Your task to perform on an android device: Open Google Chrome and click the shortcut for Amazon.com Image 0: 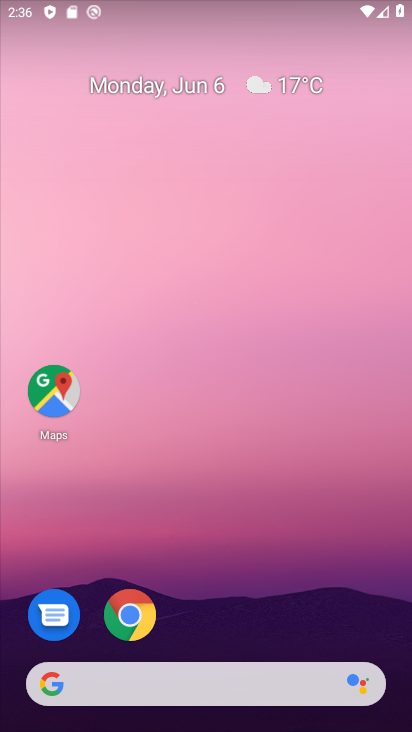
Step 0: click (145, 613)
Your task to perform on an android device: Open Google Chrome and click the shortcut for Amazon.com Image 1: 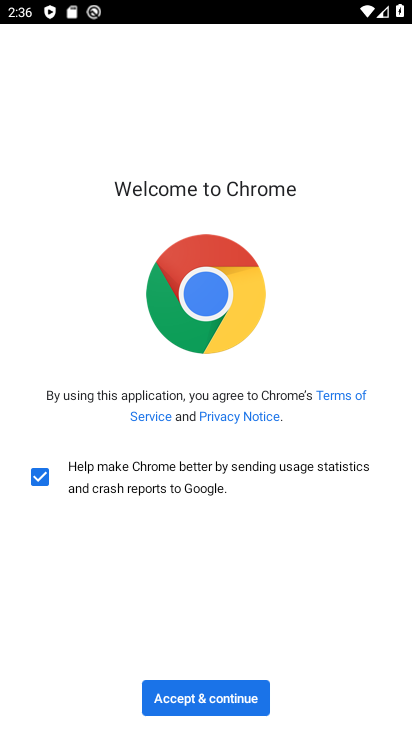
Step 1: click (213, 710)
Your task to perform on an android device: Open Google Chrome and click the shortcut for Amazon.com Image 2: 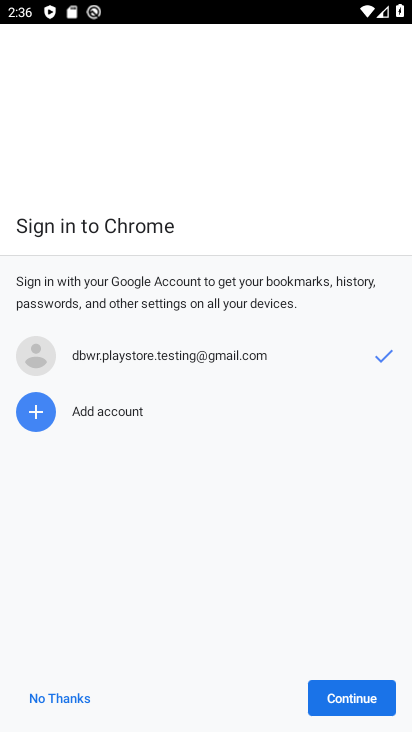
Step 2: click (350, 688)
Your task to perform on an android device: Open Google Chrome and click the shortcut for Amazon.com Image 3: 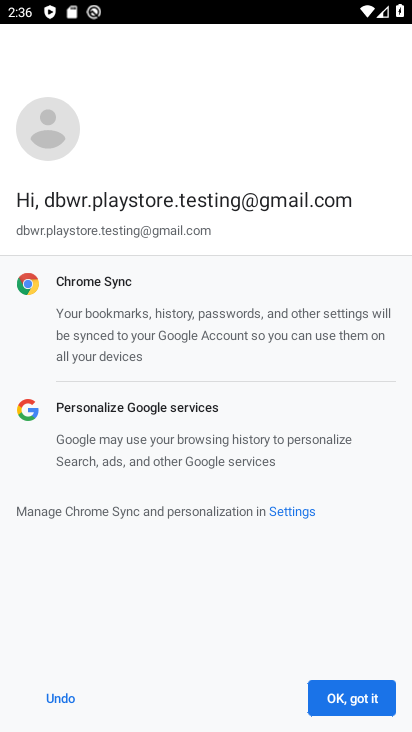
Step 3: click (350, 688)
Your task to perform on an android device: Open Google Chrome and click the shortcut for Amazon.com Image 4: 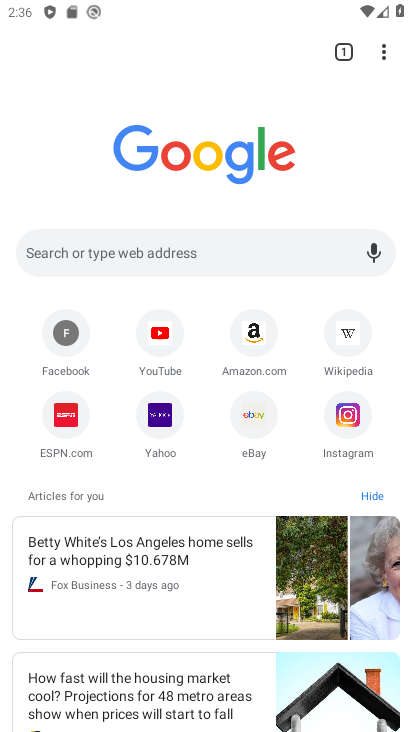
Step 4: click (260, 349)
Your task to perform on an android device: Open Google Chrome and click the shortcut for Amazon.com Image 5: 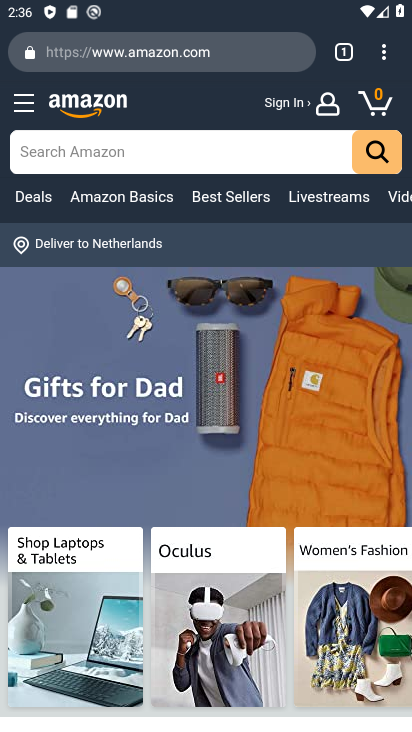
Step 5: task complete